Your task to perform on an android device: What's the weather going to be this weekend? Image 0: 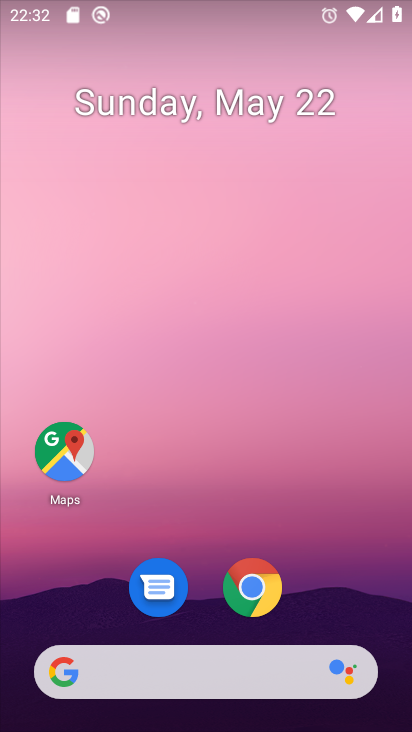
Step 0: click (216, 678)
Your task to perform on an android device: What's the weather going to be this weekend? Image 1: 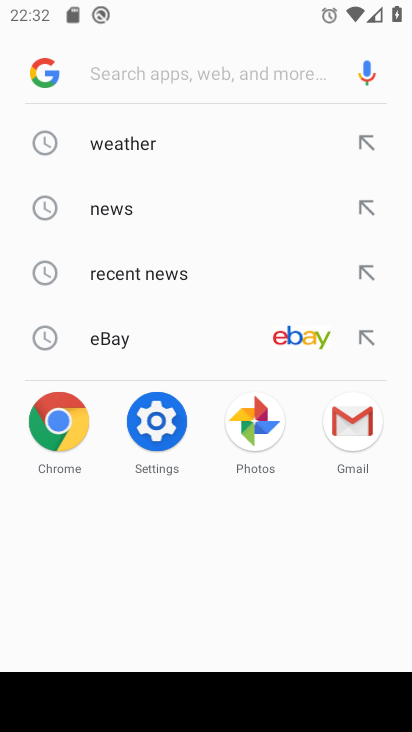
Step 1: click (115, 144)
Your task to perform on an android device: What's the weather going to be this weekend? Image 2: 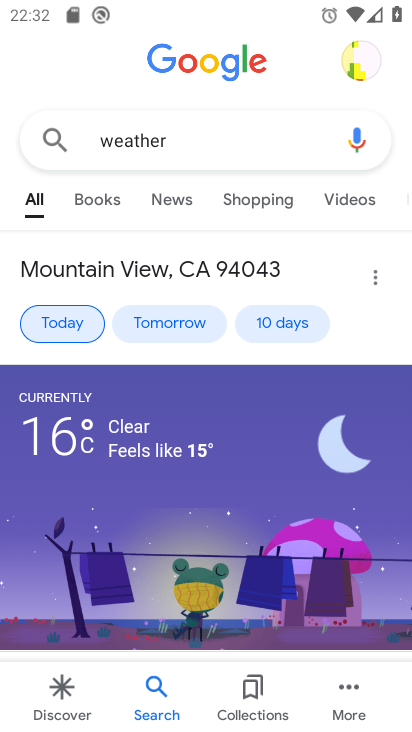
Step 2: click (80, 314)
Your task to perform on an android device: What's the weather going to be this weekend? Image 3: 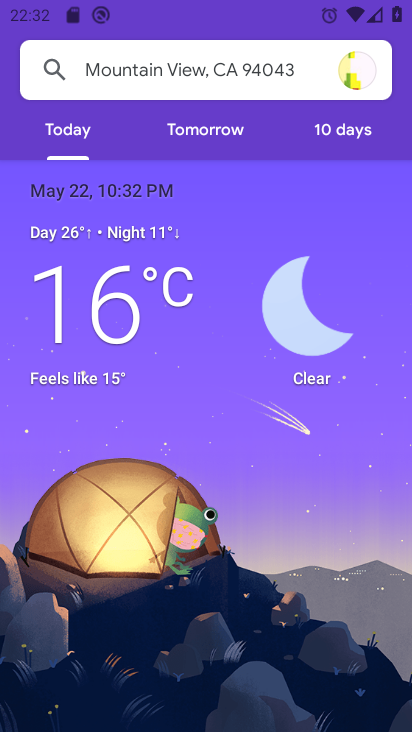
Step 3: click (344, 129)
Your task to perform on an android device: What's the weather going to be this weekend? Image 4: 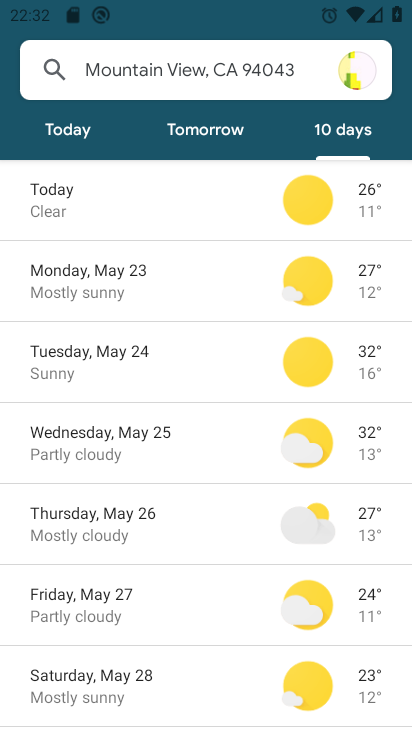
Step 4: drag from (159, 594) to (212, 254)
Your task to perform on an android device: What's the weather going to be this weekend? Image 5: 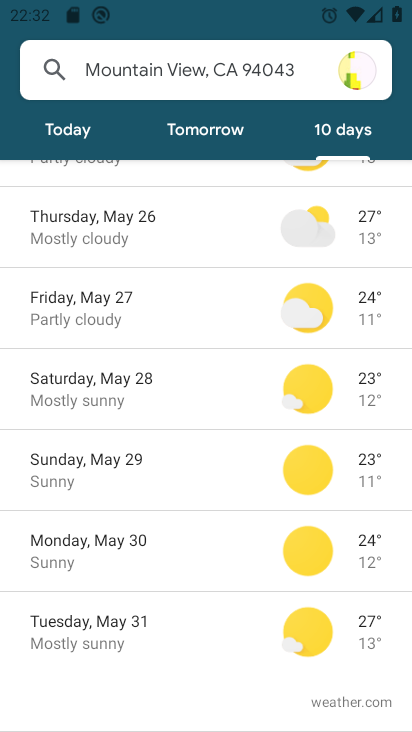
Step 5: click (123, 379)
Your task to perform on an android device: What's the weather going to be this weekend? Image 6: 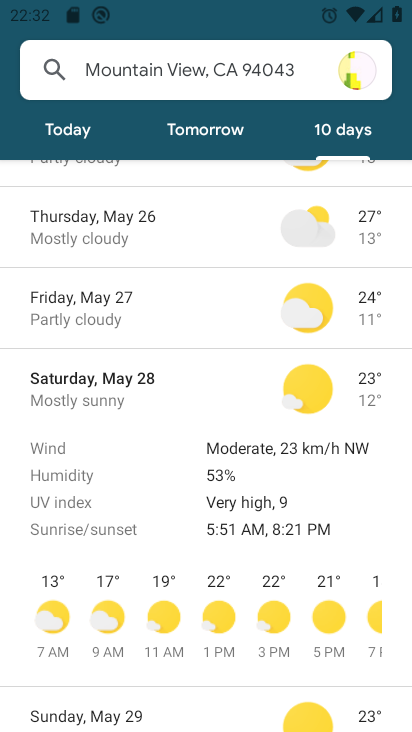
Step 6: task complete